Your task to perform on an android device: Open Yahoo.com Image 0: 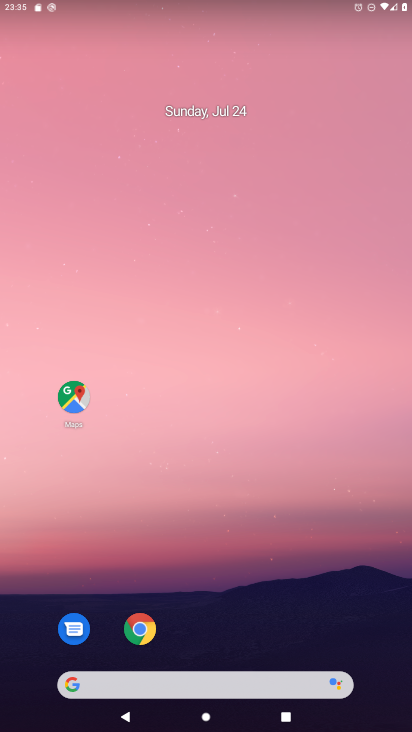
Step 0: drag from (230, 635) to (233, 159)
Your task to perform on an android device: Open Yahoo.com Image 1: 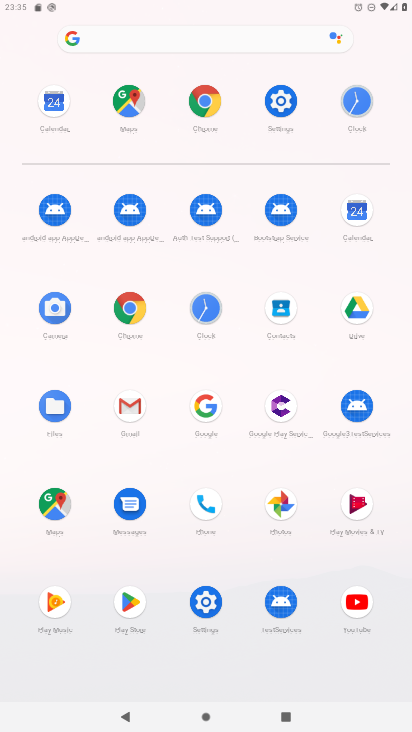
Step 1: click (146, 35)
Your task to perform on an android device: Open Yahoo.com Image 2: 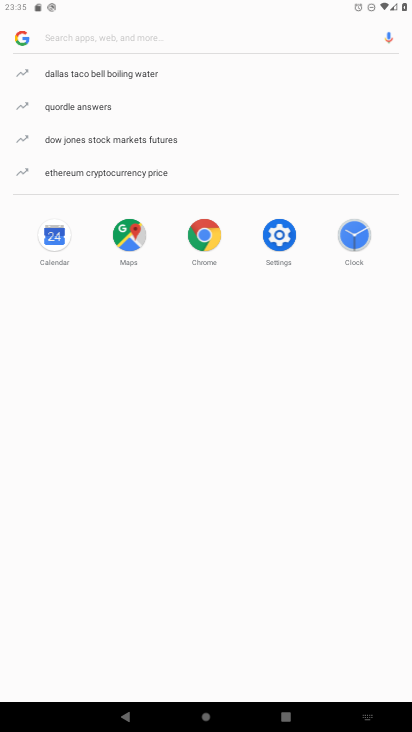
Step 2: type "Yahoo.com"
Your task to perform on an android device: Open Yahoo.com Image 3: 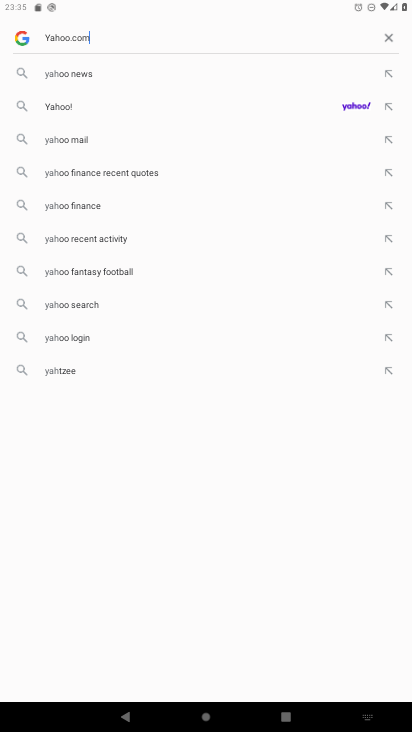
Step 3: type ""
Your task to perform on an android device: Open Yahoo.com Image 4: 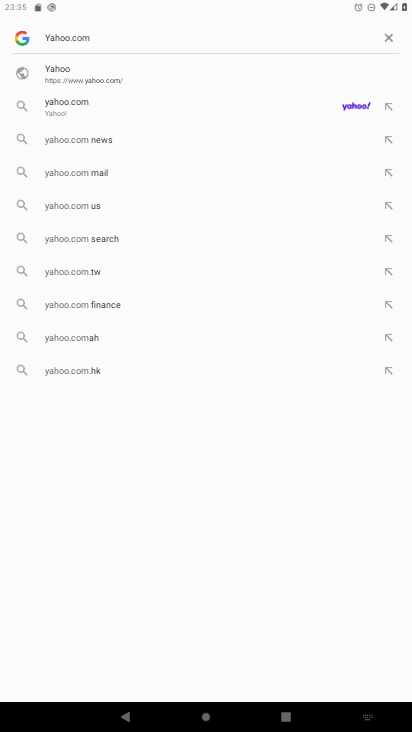
Step 4: click (79, 68)
Your task to perform on an android device: Open Yahoo.com Image 5: 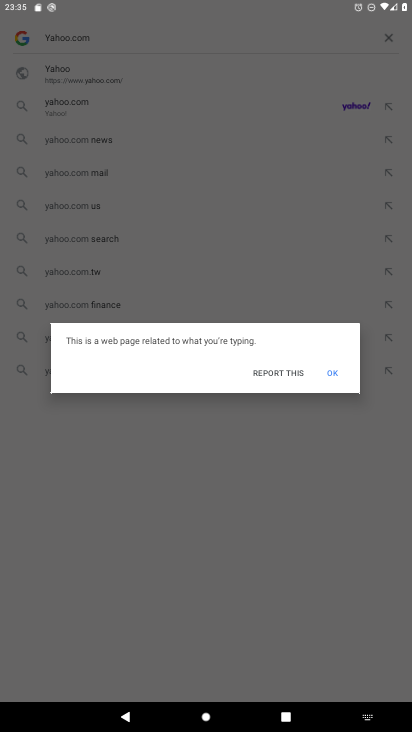
Step 5: click (331, 368)
Your task to perform on an android device: Open Yahoo.com Image 6: 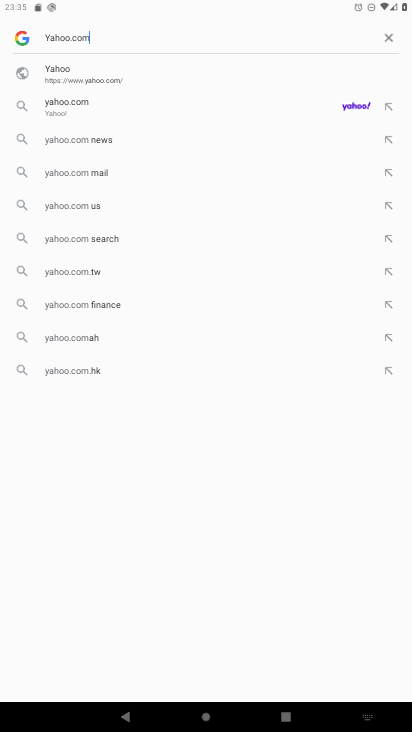
Step 6: click (86, 103)
Your task to perform on an android device: Open Yahoo.com Image 7: 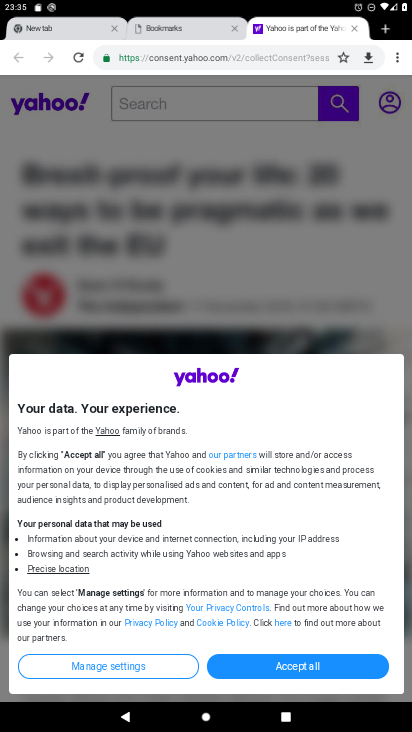
Step 7: task complete